Your task to perform on an android device: change keyboard looks Image 0: 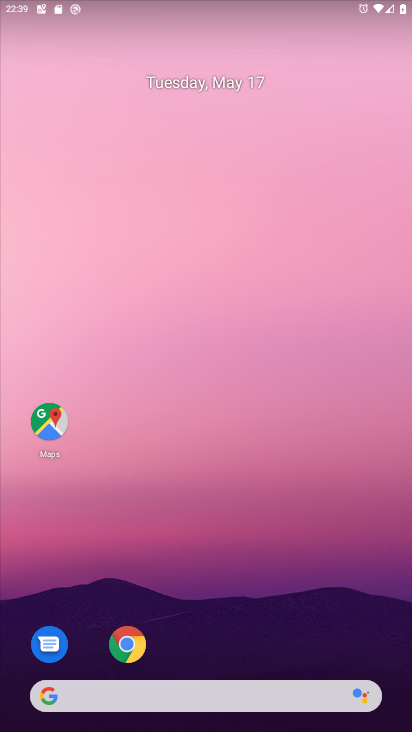
Step 0: press home button
Your task to perform on an android device: change keyboard looks Image 1: 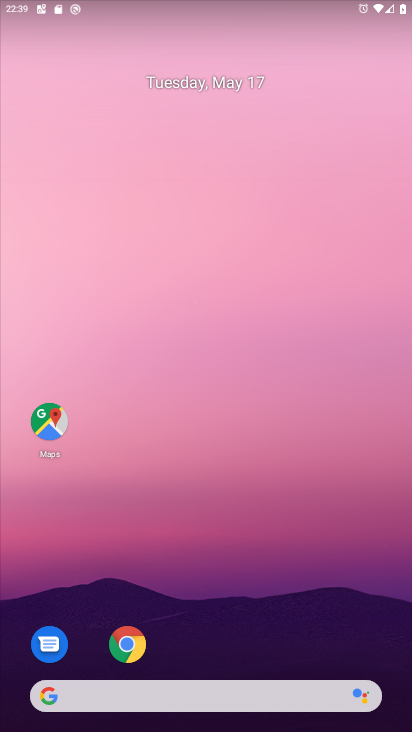
Step 1: drag from (197, 648) to (200, 140)
Your task to perform on an android device: change keyboard looks Image 2: 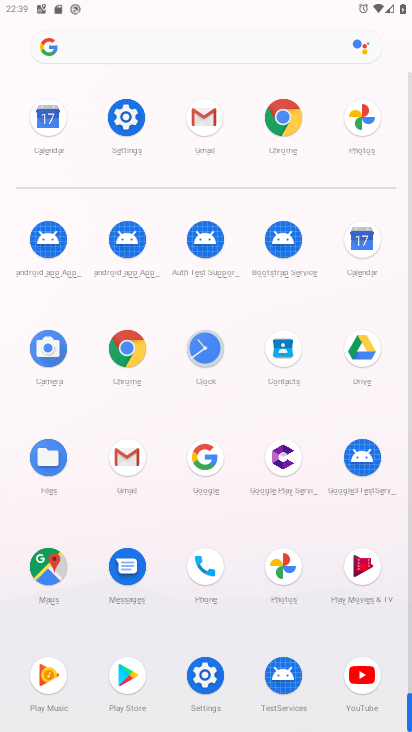
Step 2: click (127, 127)
Your task to perform on an android device: change keyboard looks Image 3: 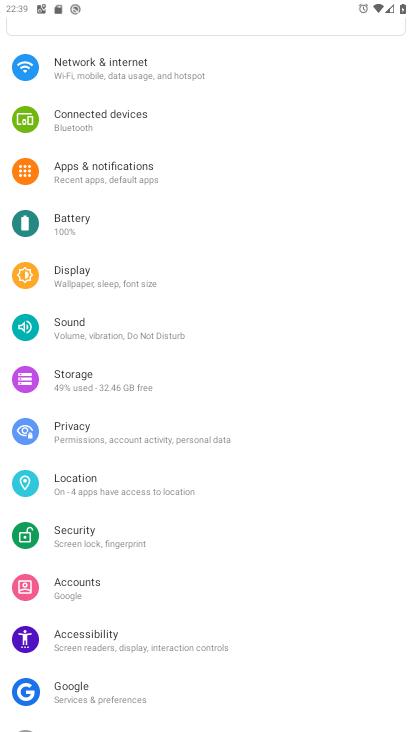
Step 3: drag from (113, 683) to (122, 202)
Your task to perform on an android device: change keyboard looks Image 4: 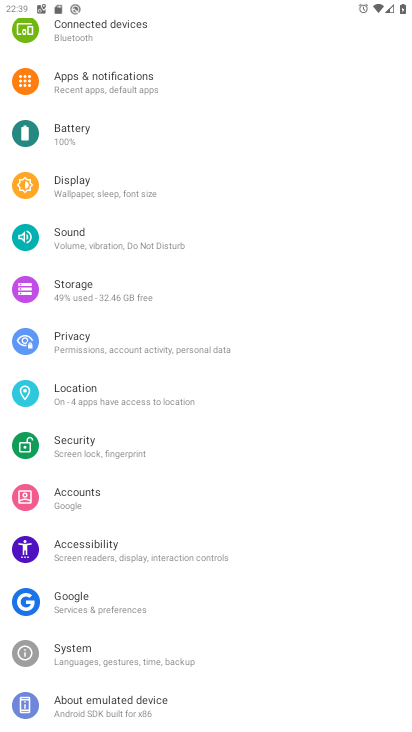
Step 4: click (91, 634)
Your task to perform on an android device: change keyboard looks Image 5: 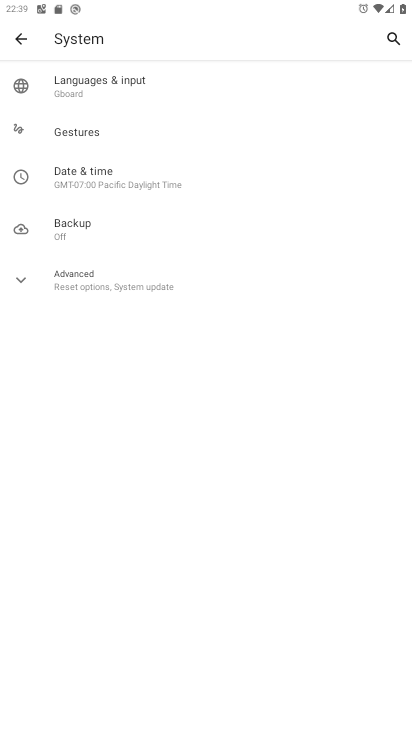
Step 5: click (64, 84)
Your task to perform on an android device: change keyboard looks Image 6: 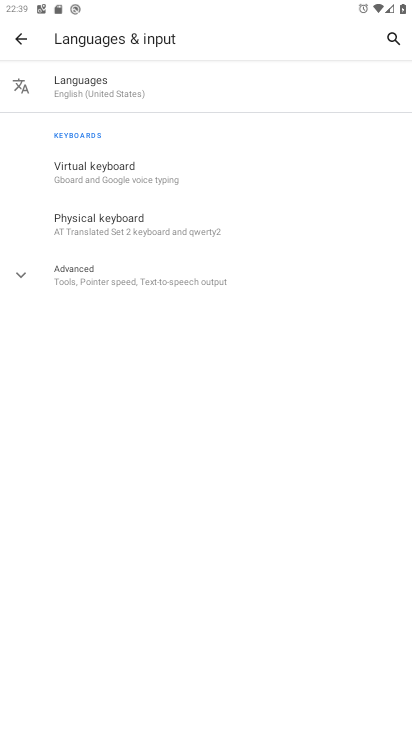
Step 6: click (100, 178)
Your task to perform on an android device: change keyboard looks Image 7: 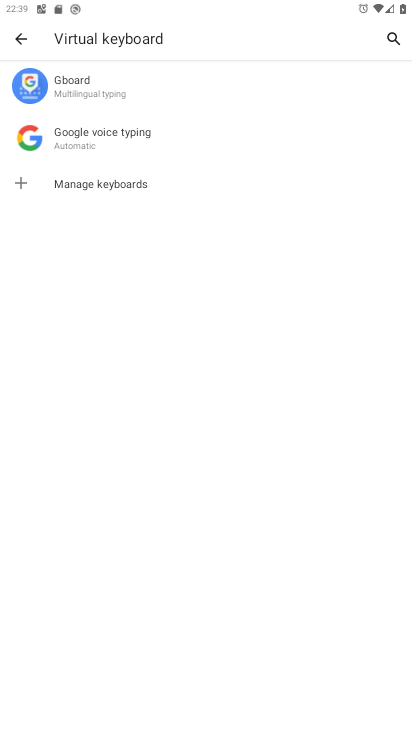
Step 7: click (78, 87)
Your task to perform on an android device: change keyboard looks Image 8: 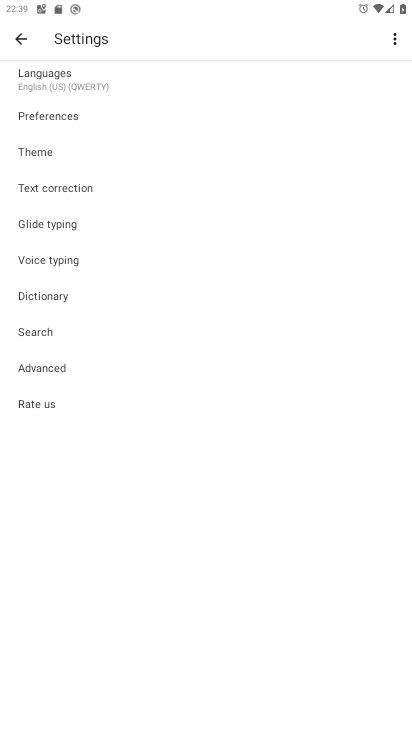
Step 8: click (44, 147)
Your task to perform on an android device: change keyboard looks Image 9: 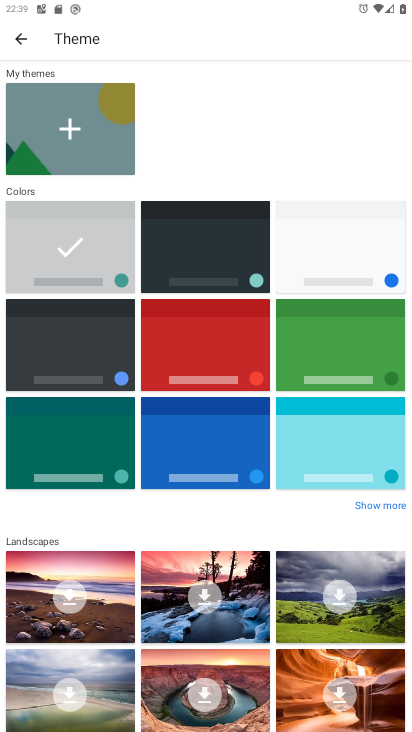
Step 9: click (200, 478)
Your task to perform on an android device: change keyboard looks Image 10: 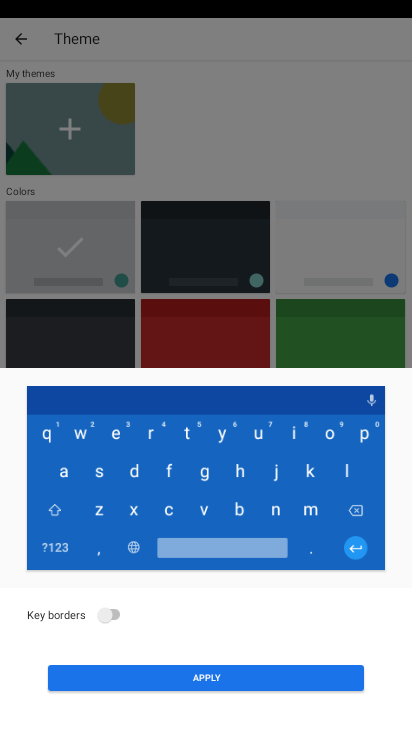
Step 10: click (224, 677)
Your task to perform on an android device: change keyboard looks Image 11: 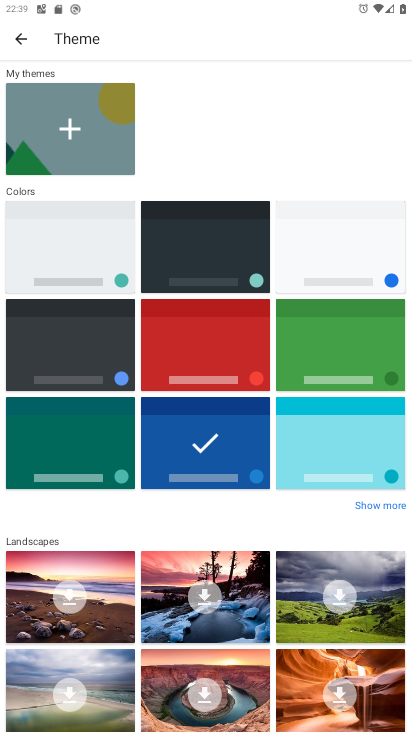
Step 11: task complete